Your task to perform on an android device: Show me popular videos on Youtube Image 0: 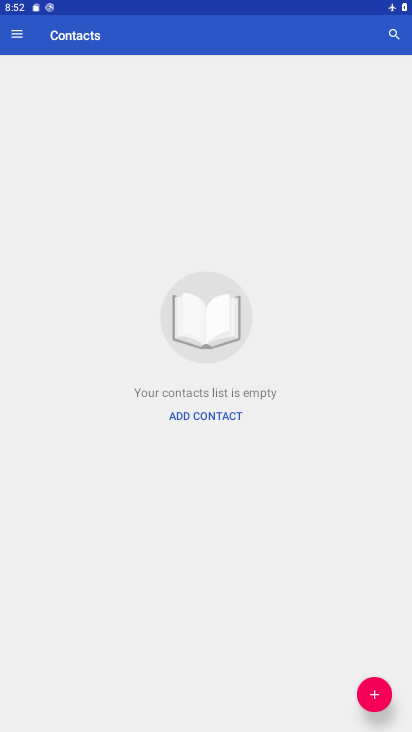
Step 0: press back button
Your task to perform on an android device: Show me popular videos on Youtube Image 1: 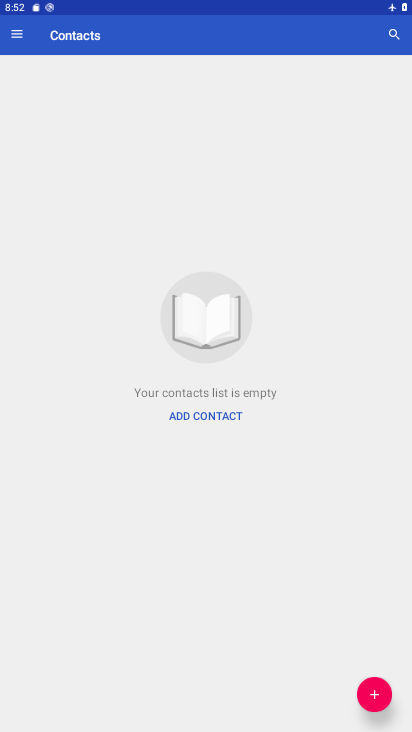
Step 1: press back button
Your task to perform on an android device: Show me popular videos on Youtube Image 2: 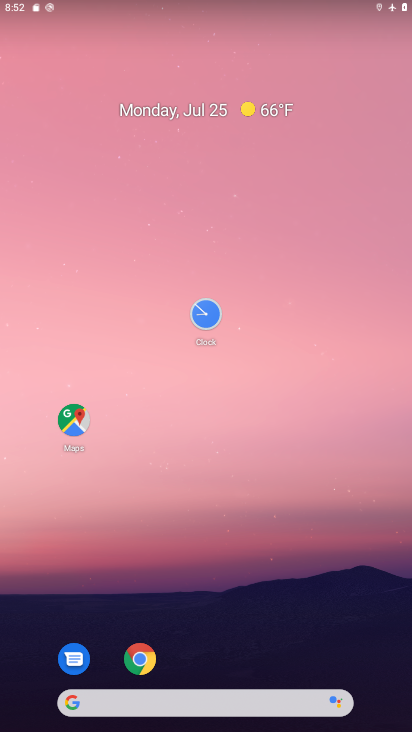
Step 2: drag from (249, 605) to (154, 140)
Your task to perform on an android device: Show me popular videos on Youtube Image 3: 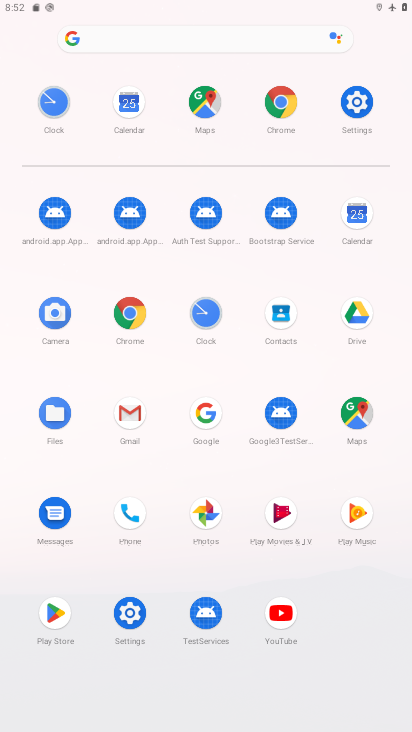
Step 3: click (278, 607)
Your task to perform on an android device: Show me popular videos on Youtube Image 4: 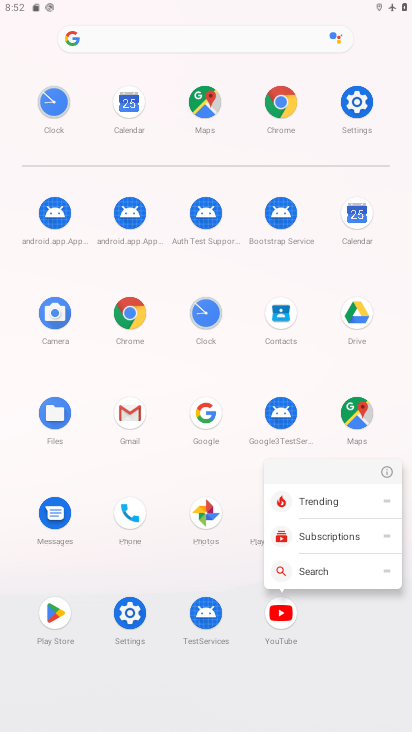
Step 4: click (281, 607)
Your task to perform on an android device: Show me popular videos on Youtube Image 5: 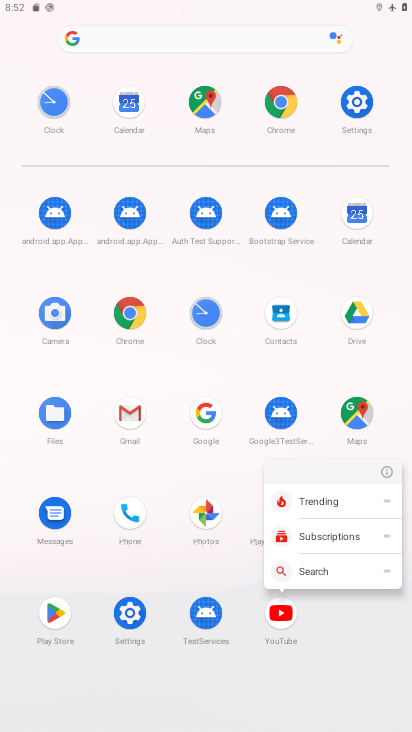
Step 5: click (282, 613)
Your task to perform on an android device: Show me popular videos on Youtube Image 6: 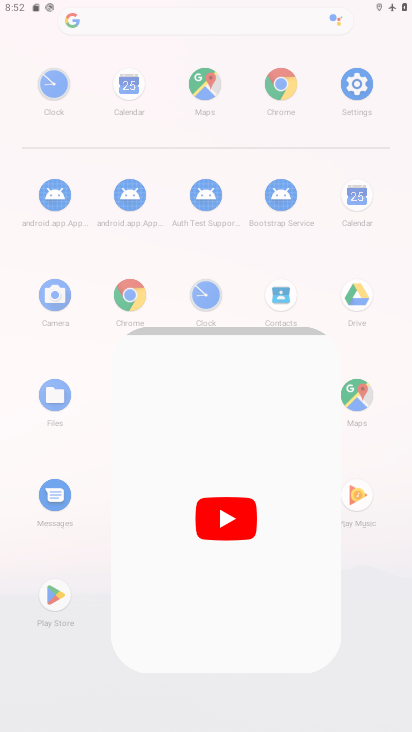
Step 6: click (277, 623)
Your task to perform on an android device: Show me popular videos on Youtube Image 7: 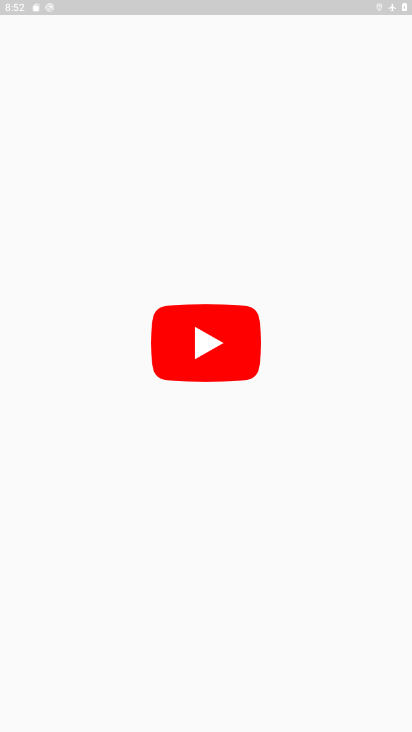
Step 7: click (281, 614)
Your task to perform on an android device: Show me popular videos on Youtube Image 8: 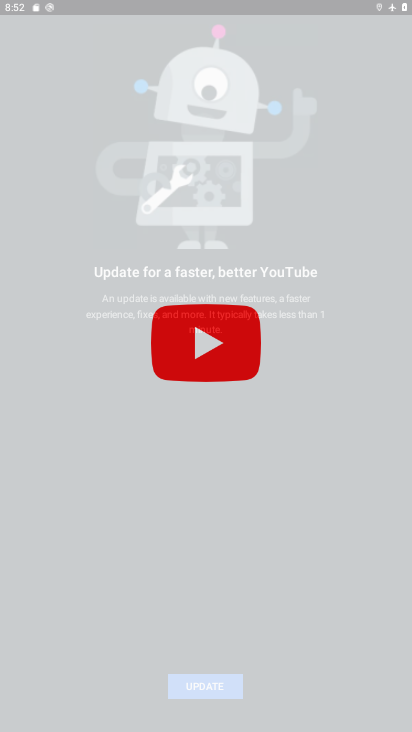
Step 8: click (281, 614)
Your task to perform on an android device: Show me popular videos on Youtube Image 9: 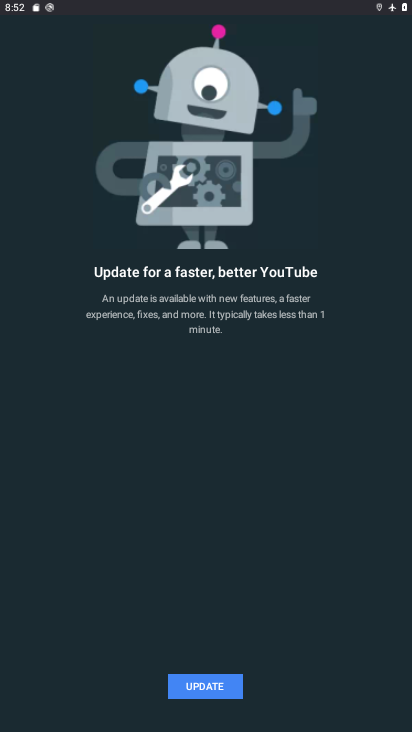
Step 9: click (216, 691)
Your task to perform on an android device: Show me popular videos on Youtube Image 10: 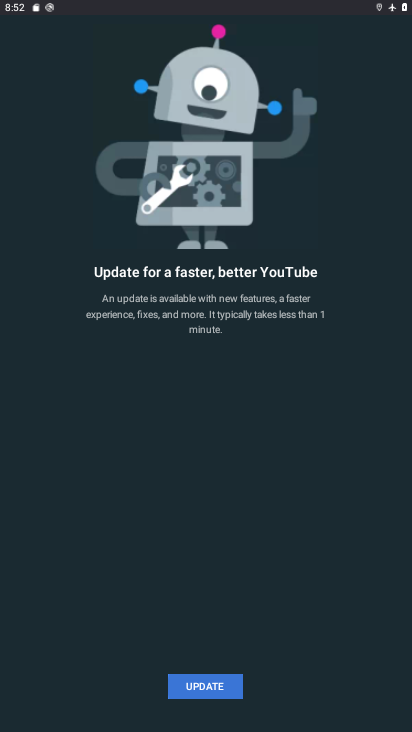
Step 10: click (216, 691)
Your task to perform on an android device: Show me popular videos on Youtube Image 11: 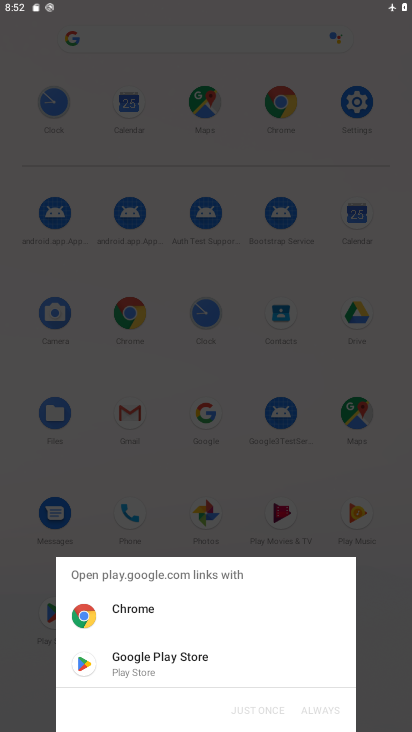
Step 11: click (172, 659)
Your task to perform on an android device: Show me popular videos on Youtube Image 12: 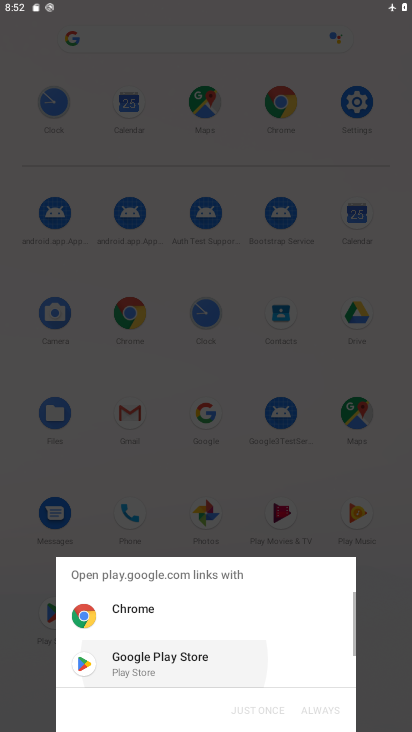
Step 12: click (168, 656)
Your task to perform on an android device: Show me popular videos on Youtube Image 13: 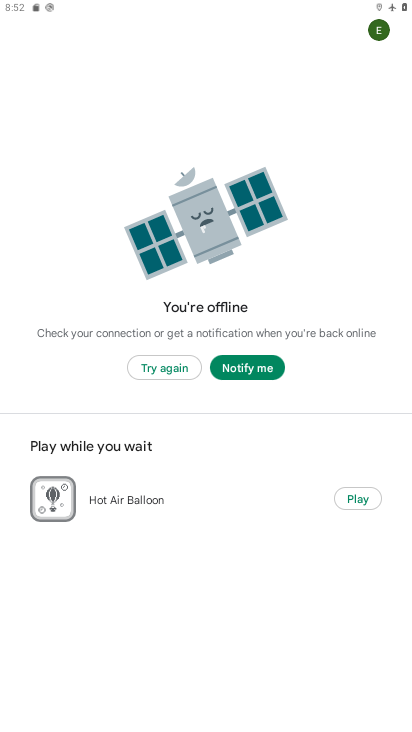
Step 13: task complete